Your task to perform on an android device: toggle notification dots Image 0: 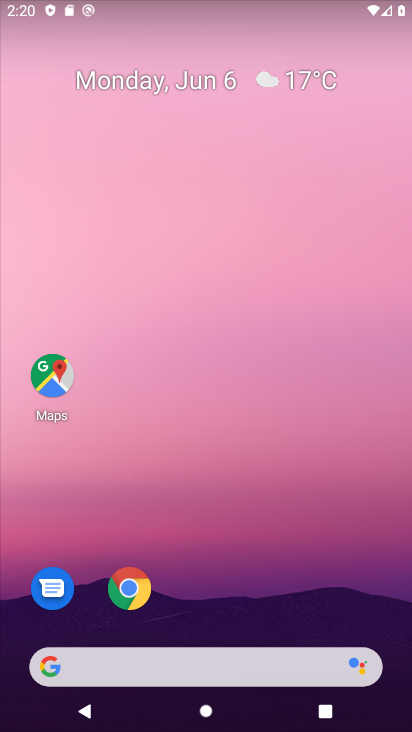
Step 0: drag from (181, 667) to (169, 11)
Your task to perform on an android device: toggle notification dots Image 1: 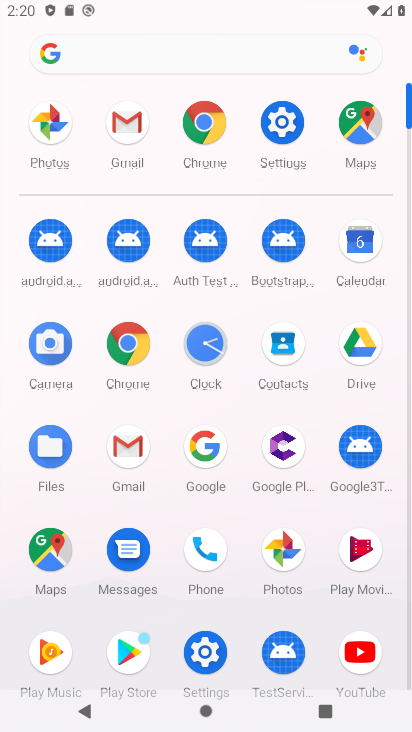
Step 1: click (290, 127)
Your task to perform on an android device: toggle notification dots Image 2: 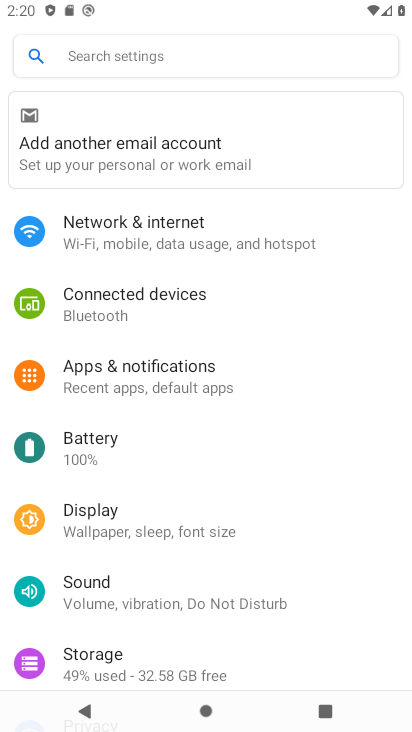
Step 2: click (112, 382)
Your task to perform on an android device: toggle notification dots Image 3: 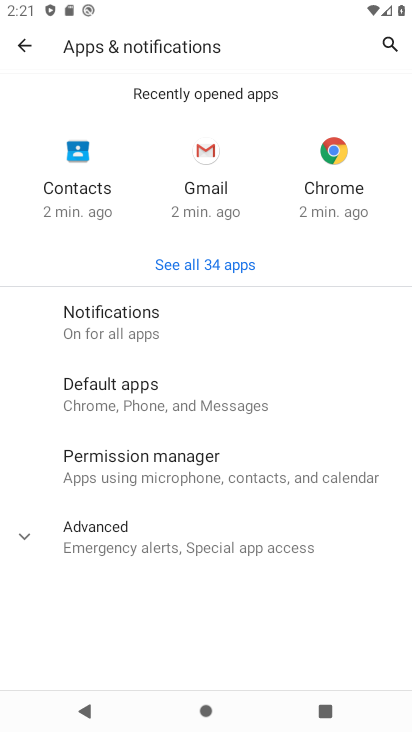
Step 3: click (108, 339)
Your task to perform on an android device: toggle notification dots Image 4: 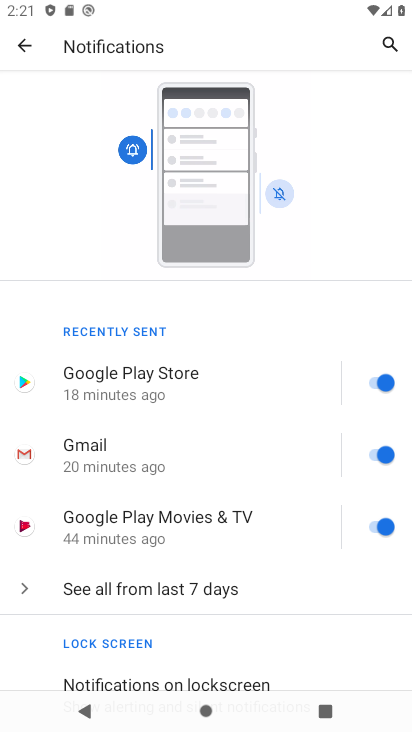
Step 4: drag from (181, 613) to (186, 276)
Your task to perform on an android device: toggle notification dots Image 5: 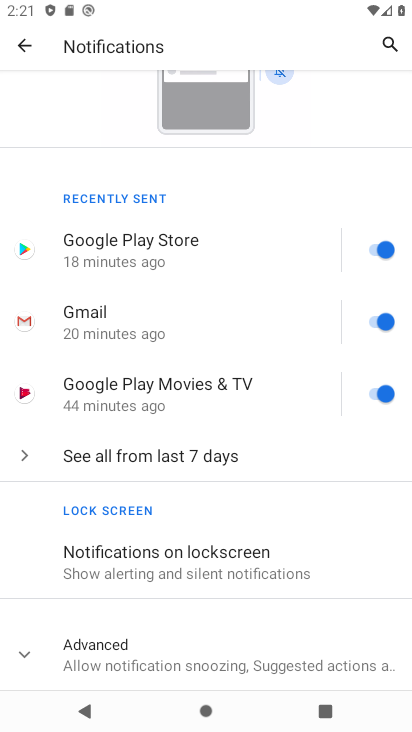
Step 5: click (177, 641)
Your task to perform on an android device: toggle notification dots Image 6: 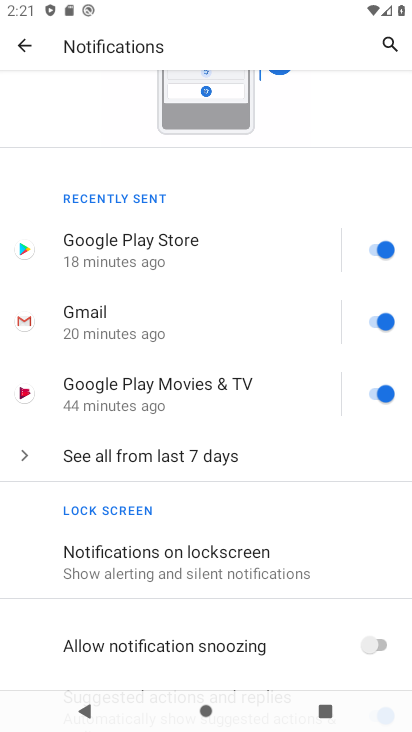
Step 6: drag from (198, 584) to (145, 92)
Your task to perform on an android device: toggle notification dots Image 7: 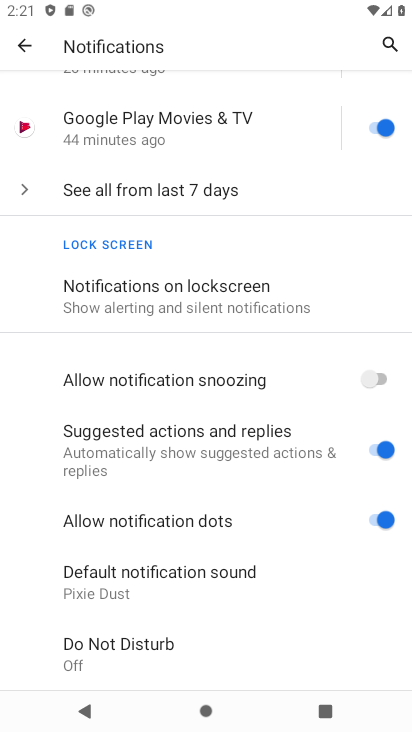
Step 7: click (377, 524)
Your task to perform on an android device: toggle notification dots Image 8: 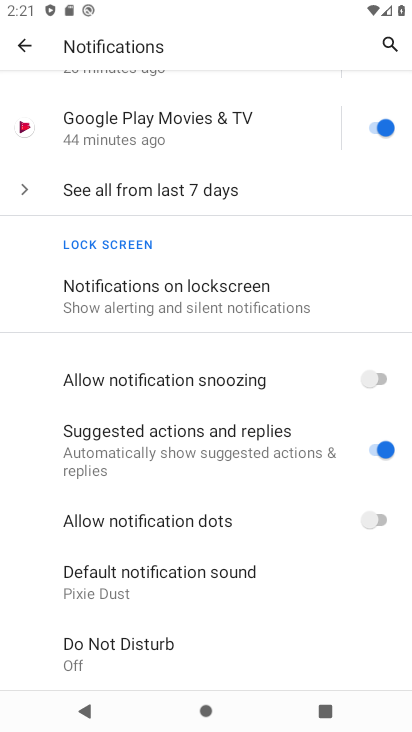
Step 8: task complete